Your task to perform on an android device: Set the phone to "Do not disturb". Image 0: 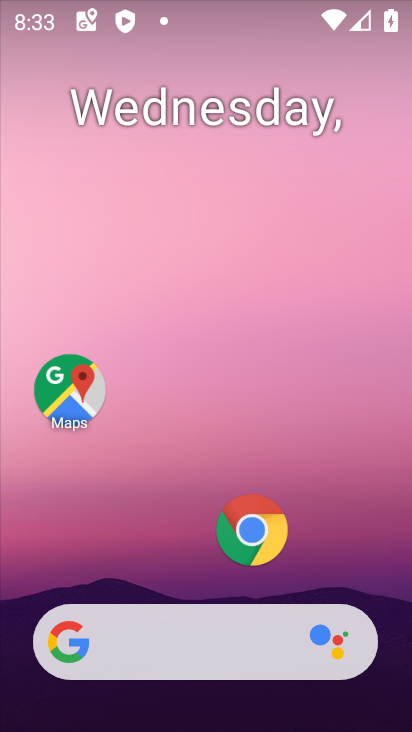
Step 0: drag from (232, 14) to (215, 555)
Your task to perform on an android device: Set the phone to "Do not disturb". Image 1: 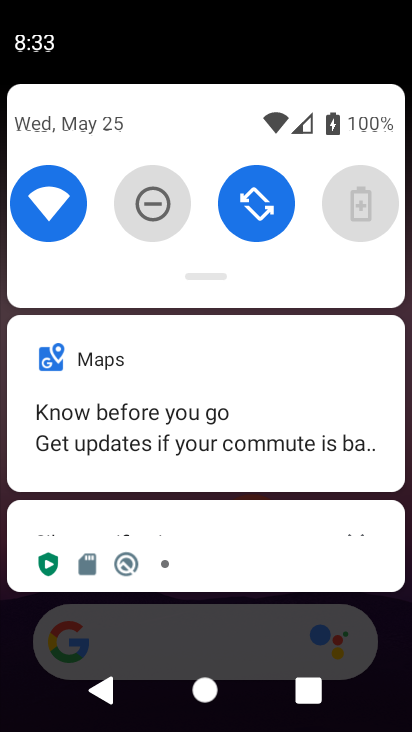
Step 1: click (151, 204)
Your task to perform on an android device: Set the phone to "Do not disturb". Image 2: 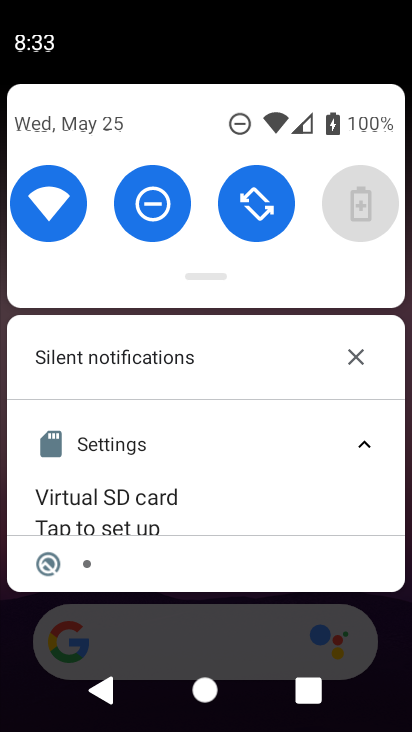
Step 2: task complete